Your task to perform on an android device: What's the weather going to be tomorrow? Image 0: 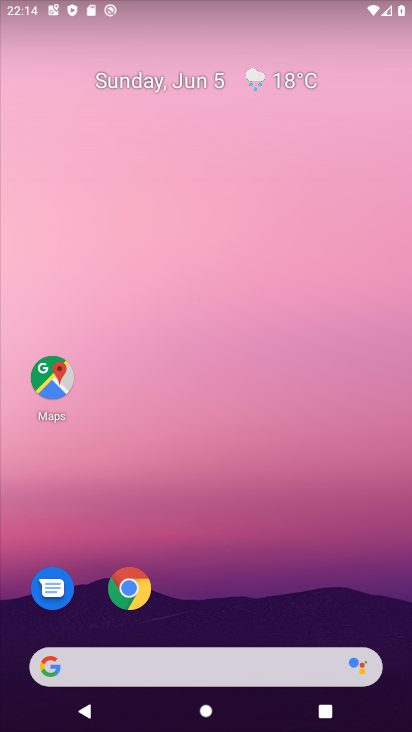
Step 0: click (284, 85)
Your task to perform on an android device: What's the weather going to be tomorrow? Image 1: 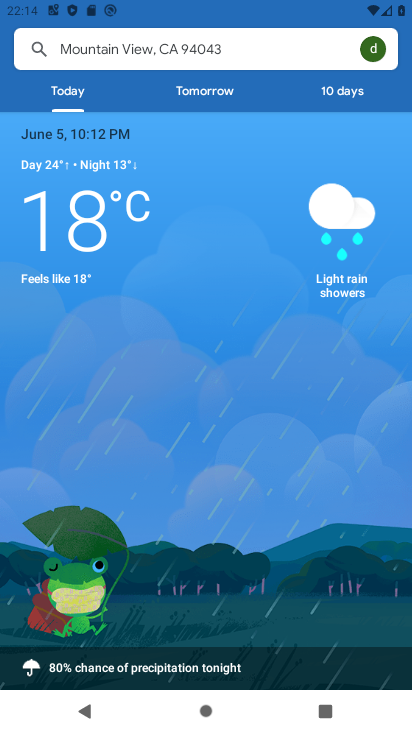
Step 1: click (192, 95)
Your task to perform on an android device: What's the weather going to be tomorrow? Image 2: 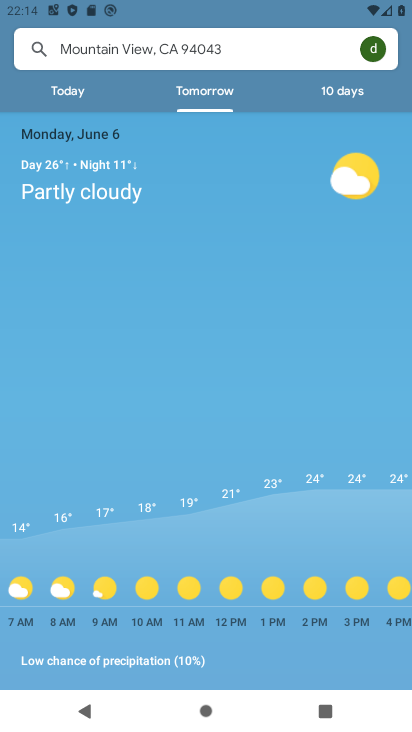
Step 2: task complete